Your task to perform on an android device: set the stopwatch Image 0: 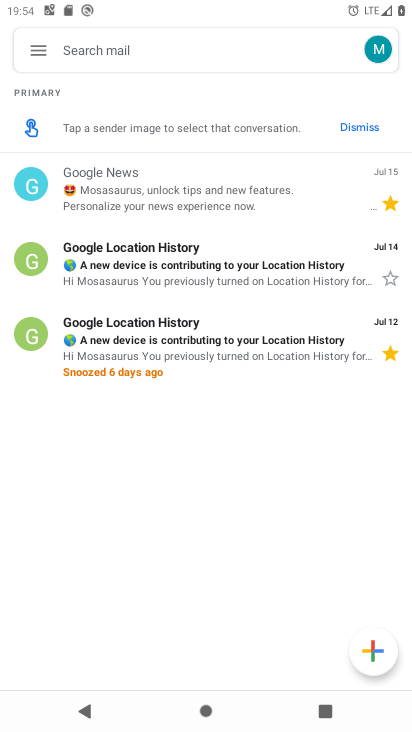
Step 0: press home button
Your task to perform on an android device: set the stopwatch Image 1: 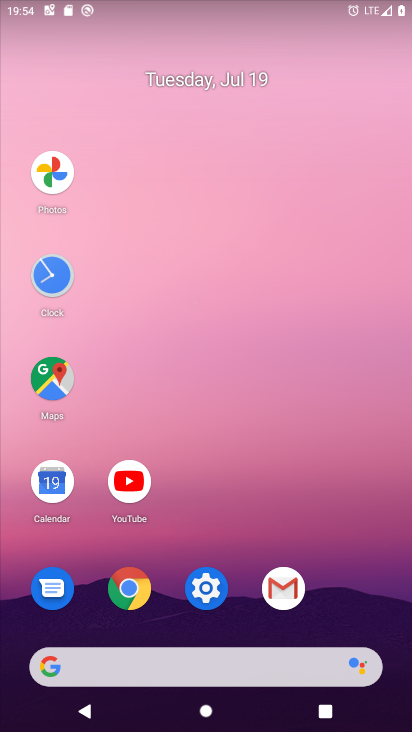
Step 1: click (49, 270)
Your task to perform on an android device: set the stopwatch Image 2: 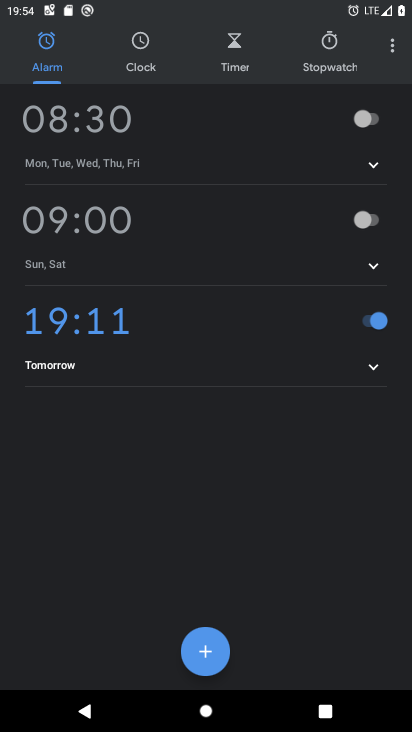
Step 2: click (325, 41)
Your task to perform on an android device: set the stopwatch Image 3: 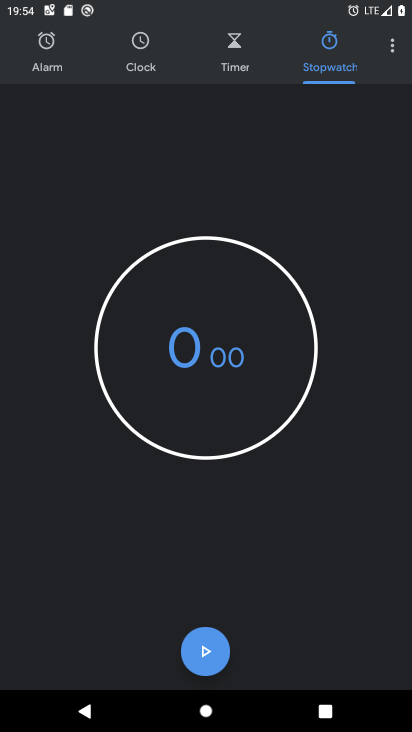
Step 3: task complete